Your task to perform on an android device: see tabs open on other devices in the chrome app Image 0: 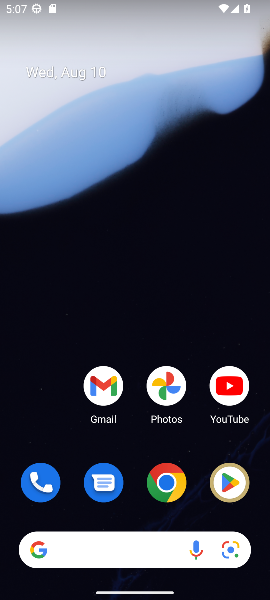
Step 0: click (162, 481)
Your task to perform on an android device: see tabs open on other devices in the chrome app Image 1: 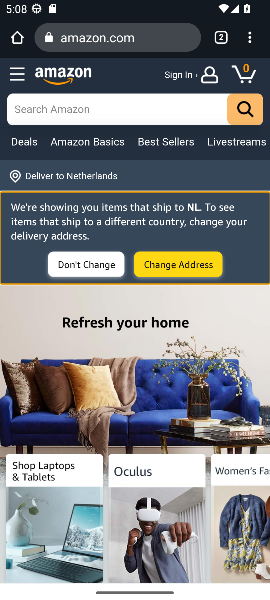
Step 1: click (250, 41)
Your task to perform on an android device: see tabs open on other devices in the chrome app Image 2: 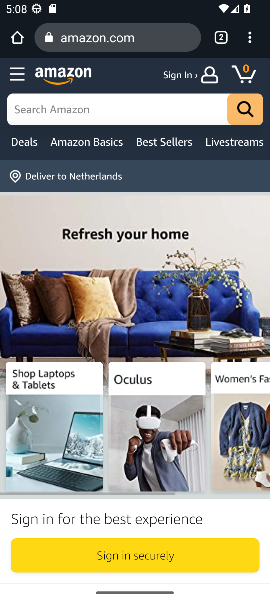
Step 2: click (250, 42)
Your task to perform on an android device: see tabs open on other devices in the chrome app Image 3: 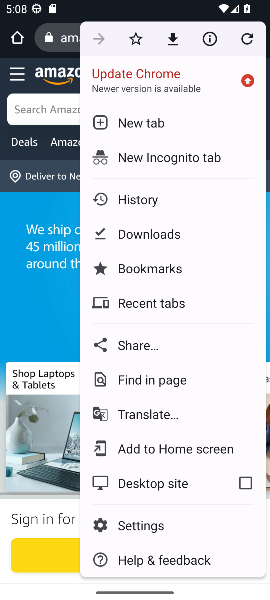
Step 3: click (145, 298)
Your task to perform on an android device: see tabs open on other devices in the chrome app Image 4: 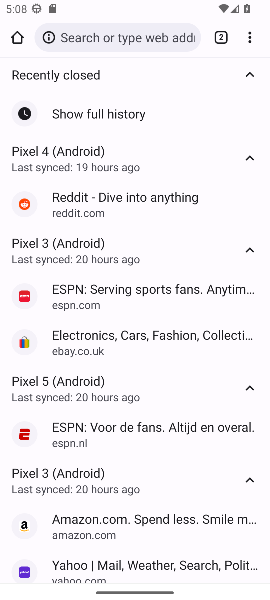
Step 4: task complete